Your task to perform on an android device: see creations saved in the google photos Image 0: 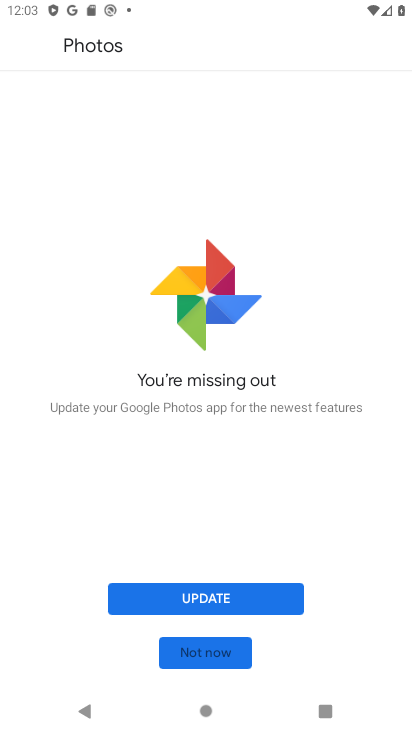
Step 0: press home button
Your task to perform on an android device: see creations saved in the google photos Image 1: 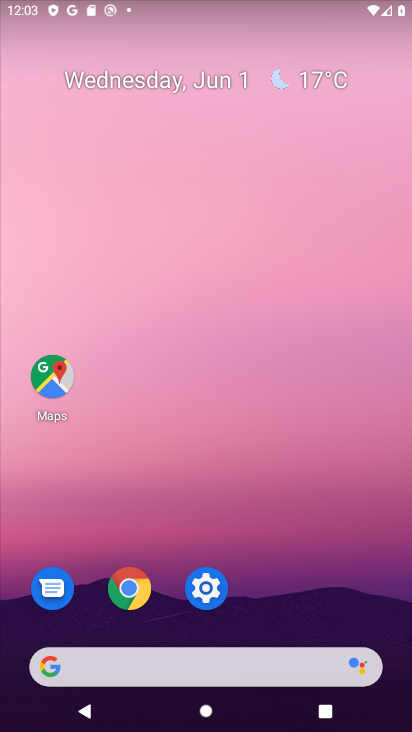
Step 1: drag from (207, 686) to (319, 111)
Your task to perform on an android device: see creations saved in the google photos Image 2: 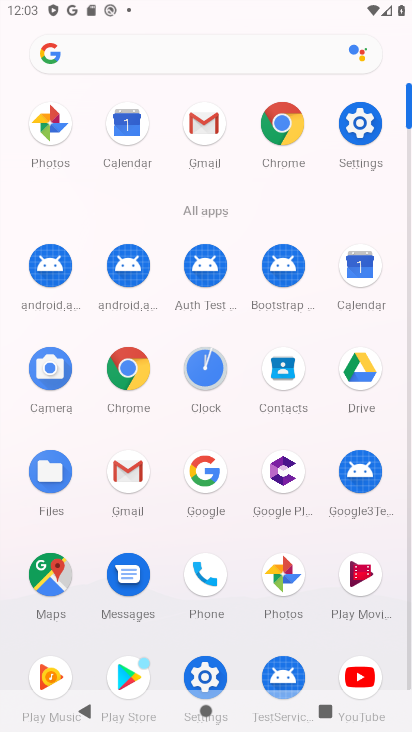
Step 2: click (279, 574)
Your task to perform on an android device: see creations saved in the google photos Image 3: 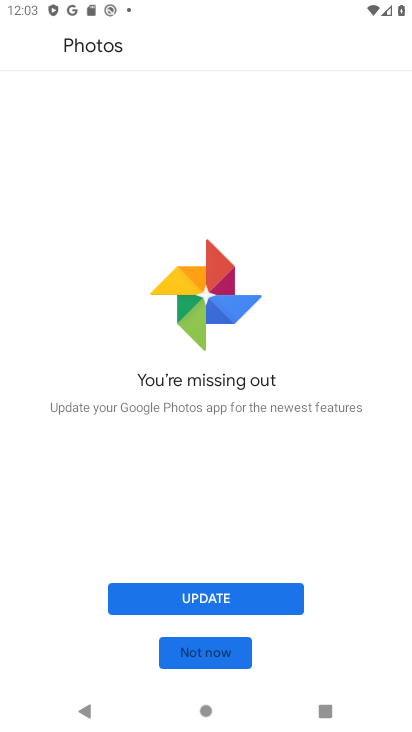
Step 3: click (210, 613)
Your task to perform on an android device: see creations saved in the google photos Image 4: 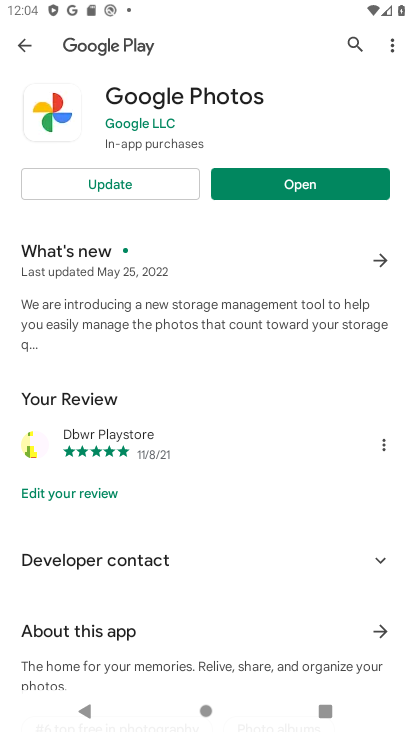
Step 4: click (105, 175)
Your task to perform on an android device: see creations saved in the google photos Image 5: 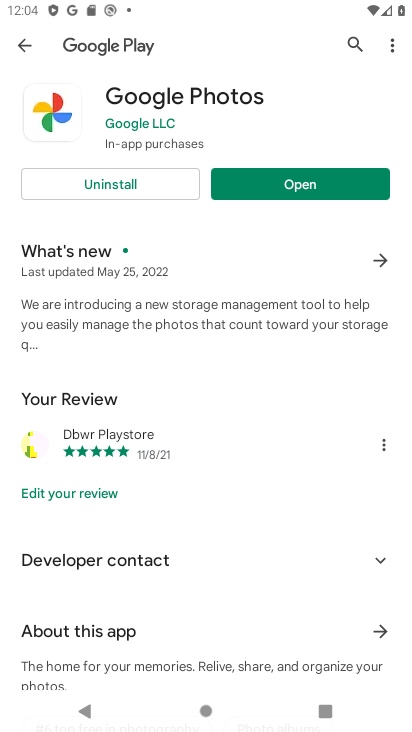
Step 5: click (301, 186)
Your task to perform on an android device: see creations saved in the google photos Image 6: 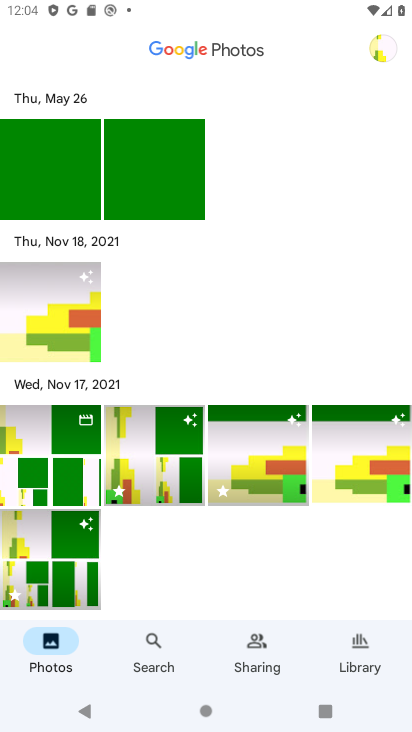
Step 6: click (174, 472)
Your task to perform on an android device: see creations saved in the google photos Image 7: 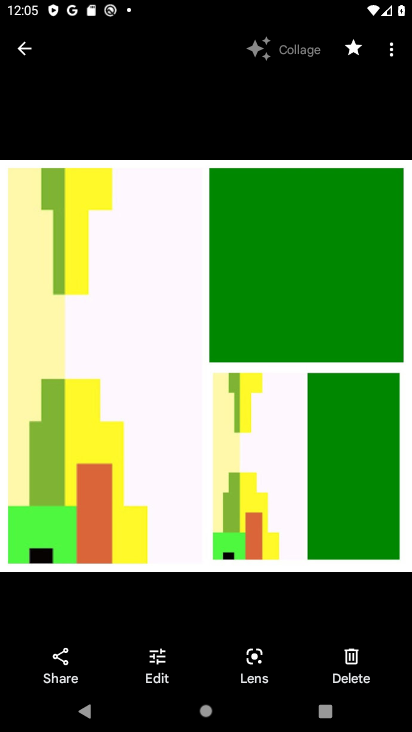
Step 7: click (391, 45)
Your task to perform on an android device: see creations saved in the google photos Image 8: 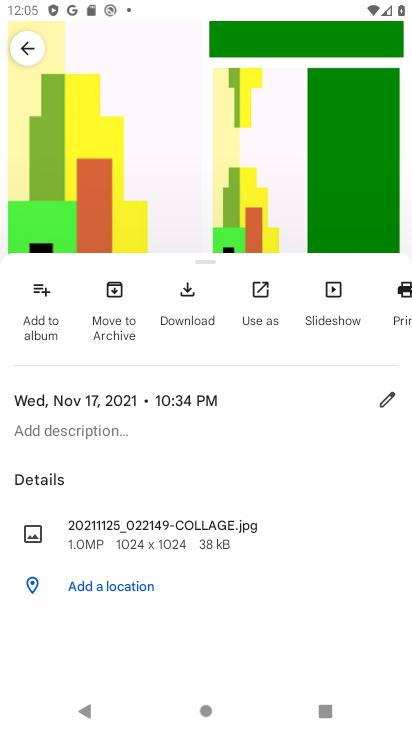
Step 8: task complete